Your task to perform on an android device: When is my next meeting? Image 0: 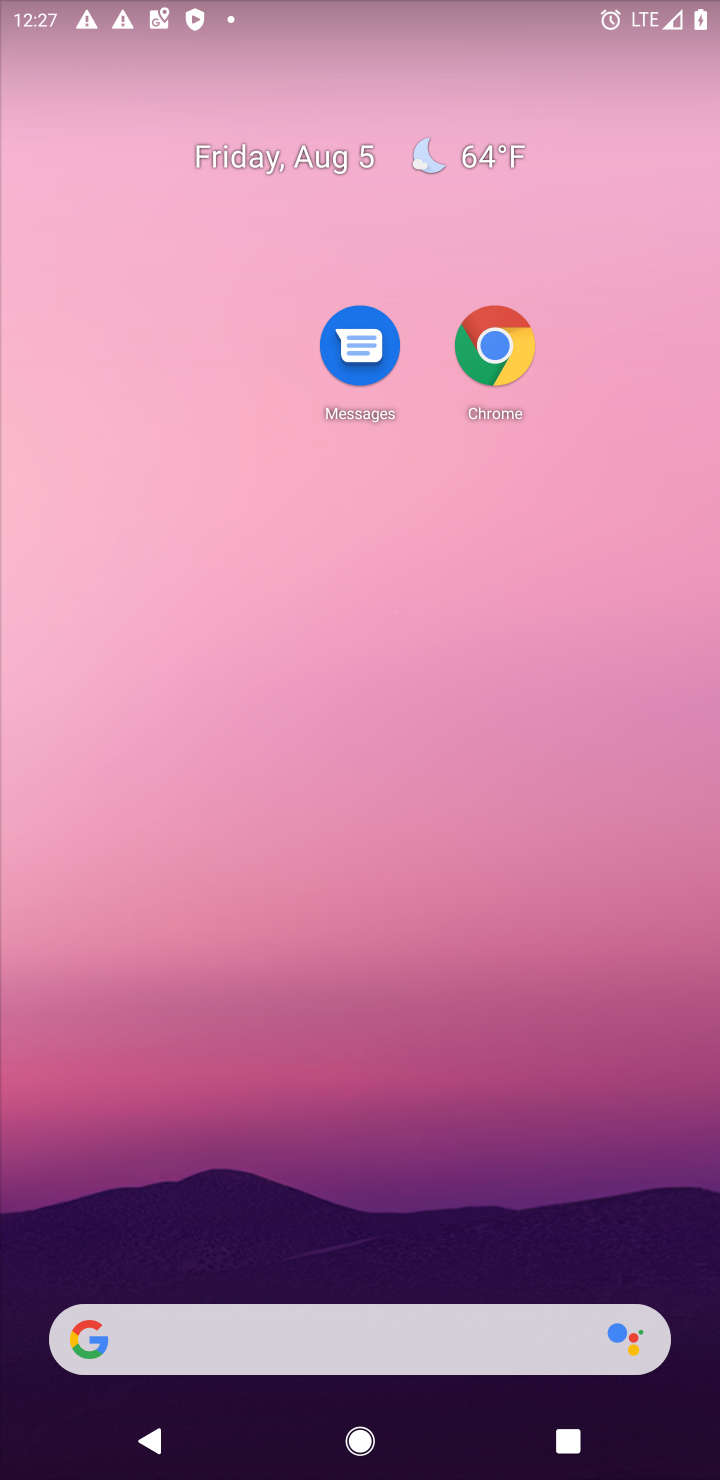
Step 0: drag from (470, 1007) to (710, 60)
Your task to perform on an android device: When is my next meeting? Image 1: 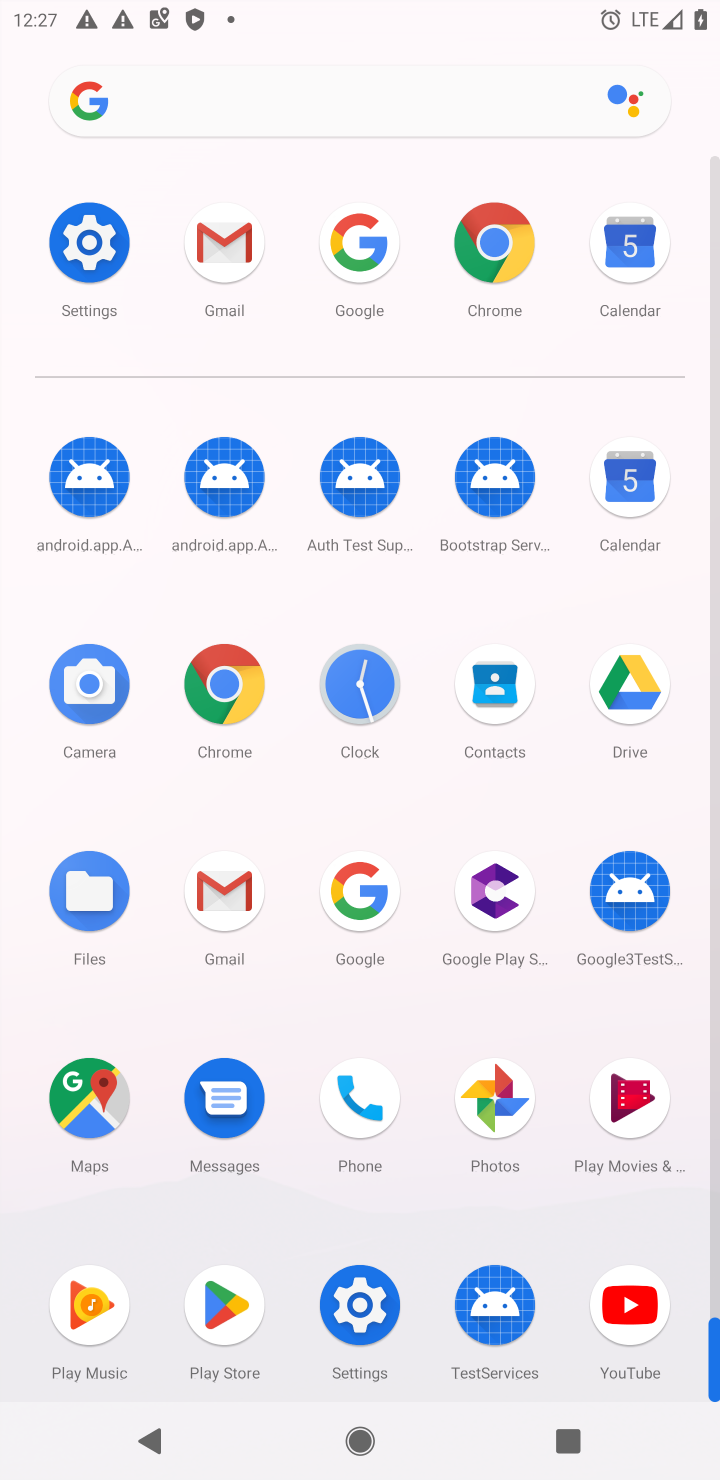
Step 1: click (614, 497)
Your task to perform on an android device: When is my next meeting? Image 2: 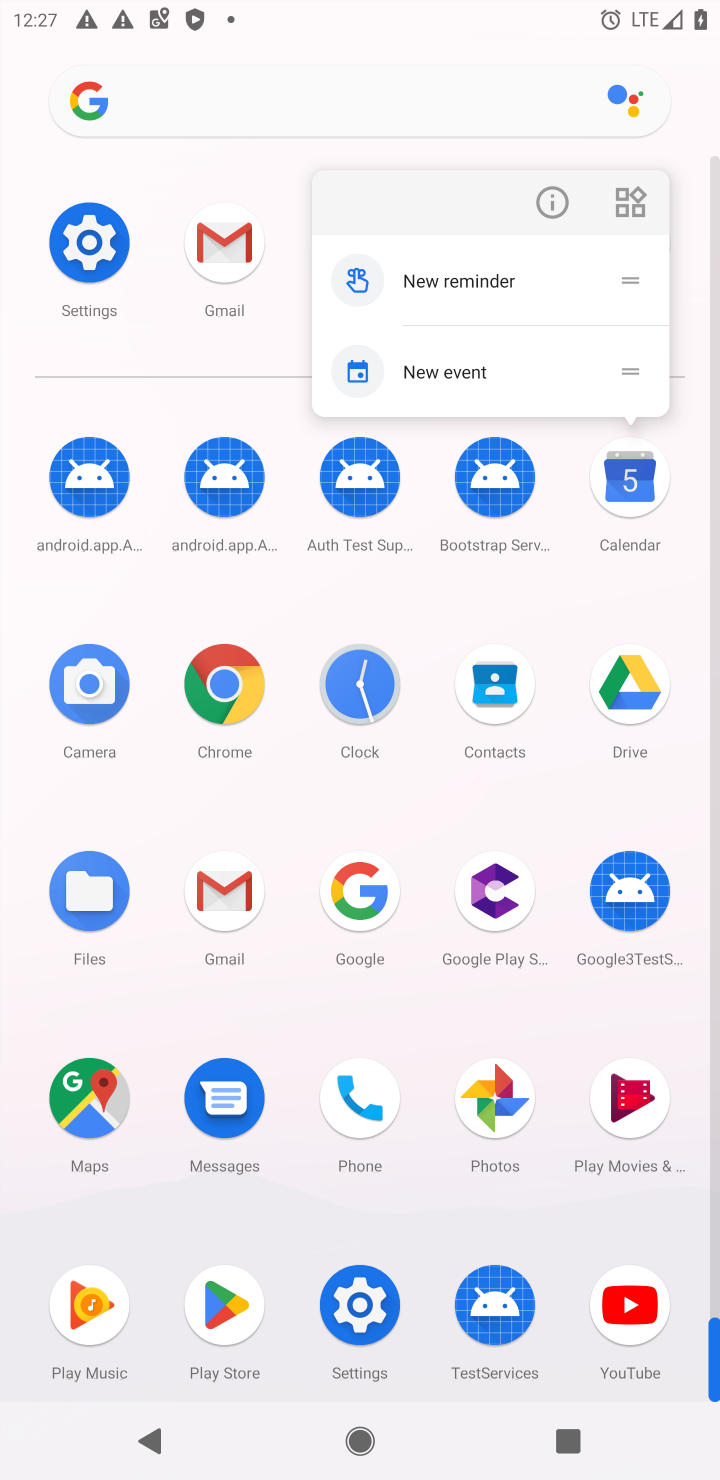
Step 2: click (614, 497)
Your task to perform on an android device: When is my next meeting? Image 3: 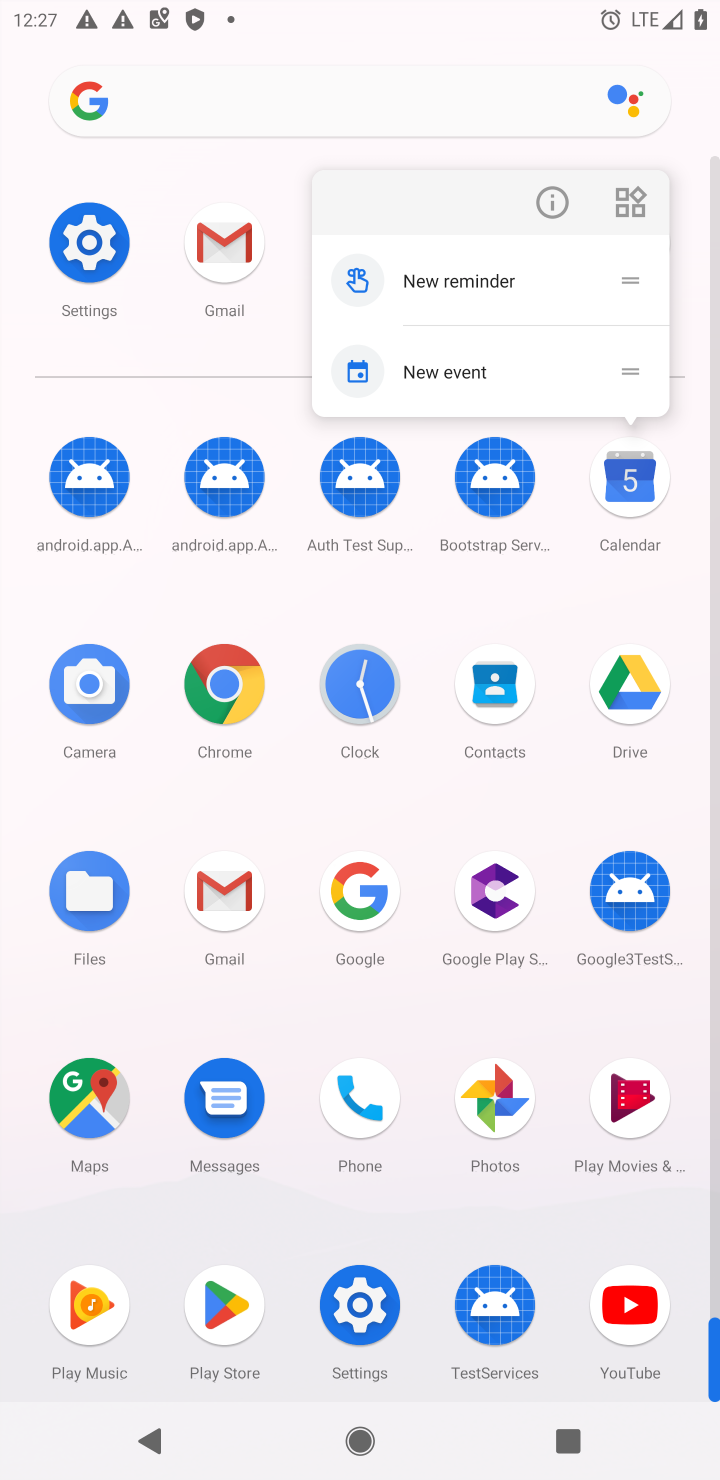
Step 3: click (625, 493)
Your task to perform on an android device: When is my next meeting? Image 4: 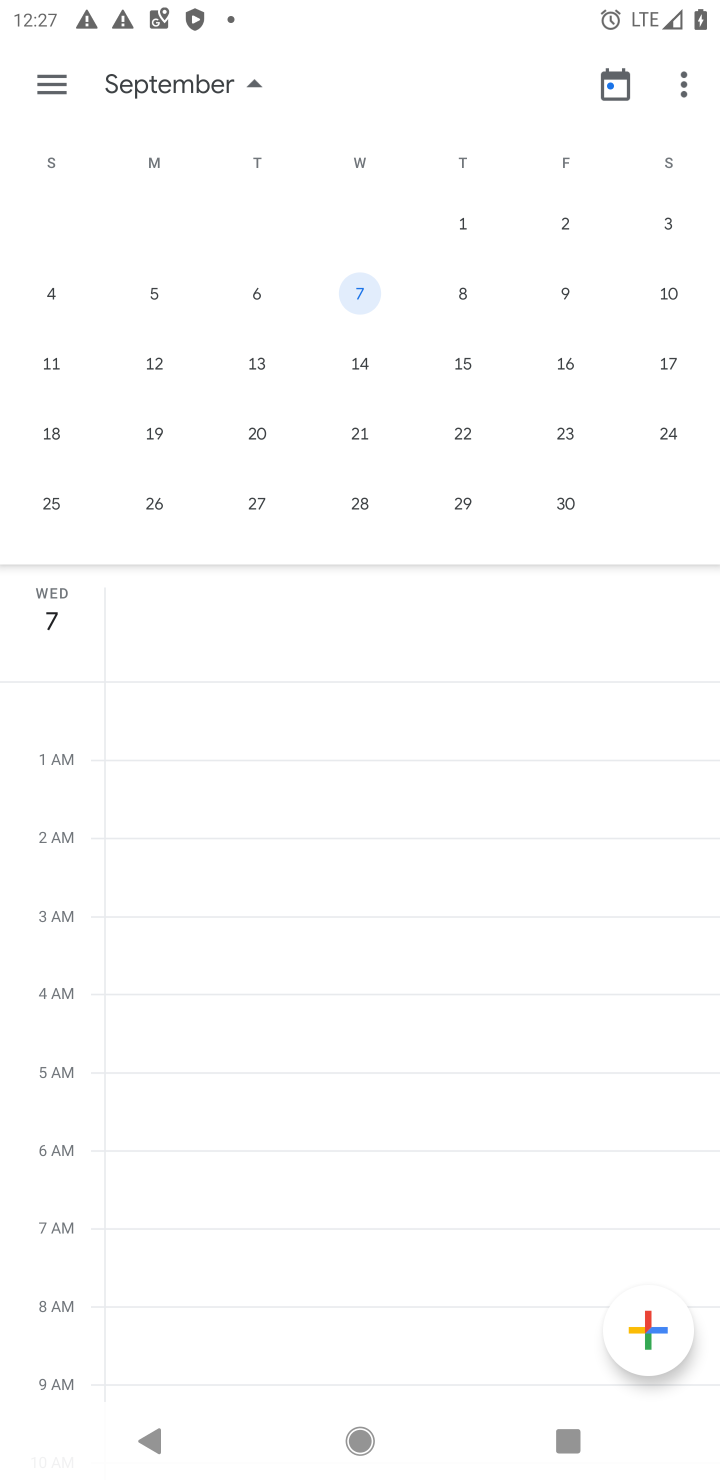
Step 4: click (366, 309)
Your task to perform on an android device: When is my next meeting? Image 5: 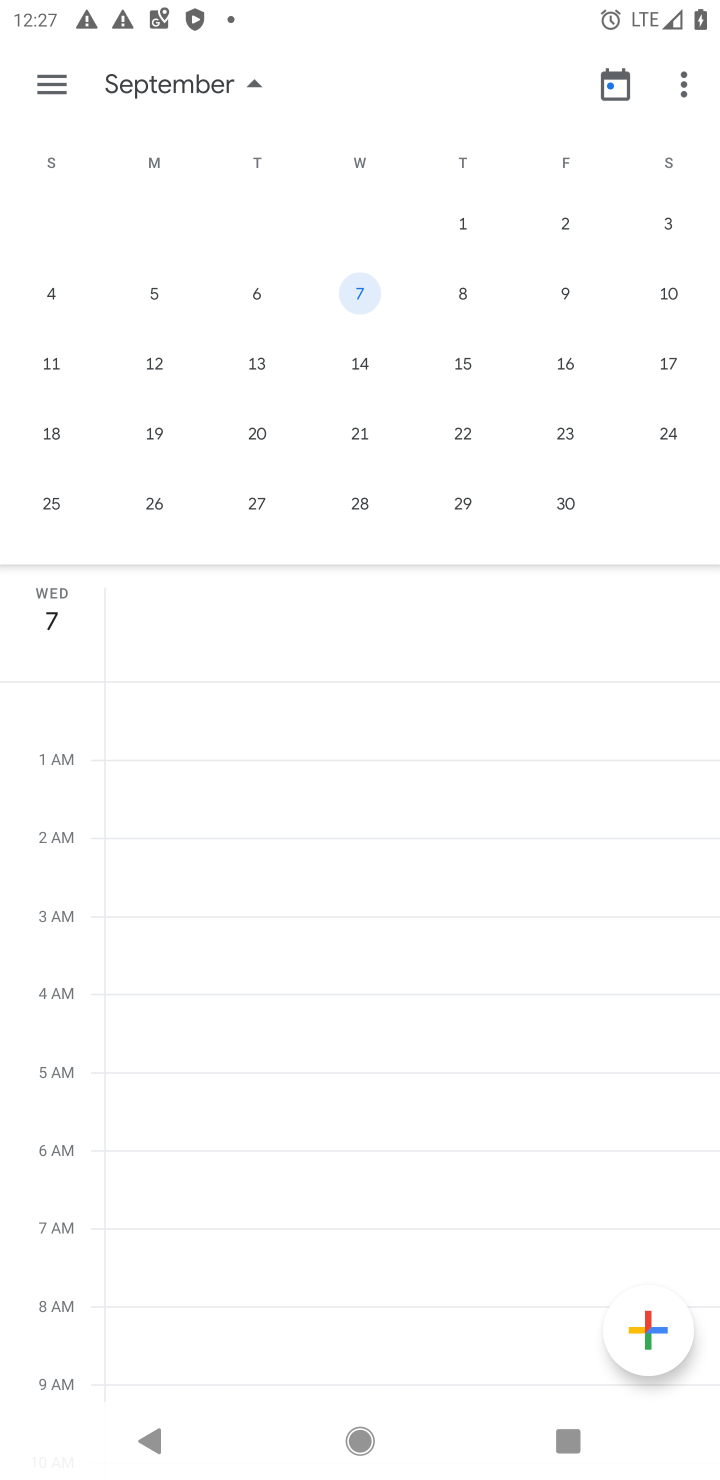
Step 5: task complete